Your task to perform on an android device: choose inbox layout in the gmail app Image 0: 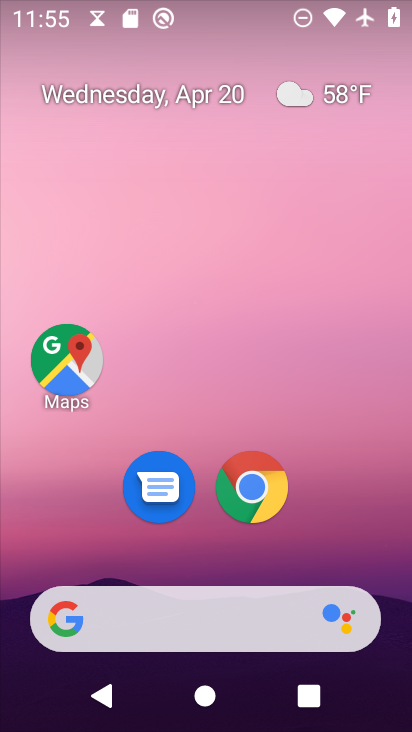
Step 0: drag from (341, 486) to (222, 109)
Your task to perform on an android device: choose inbox layout in the gmail app Image 1: 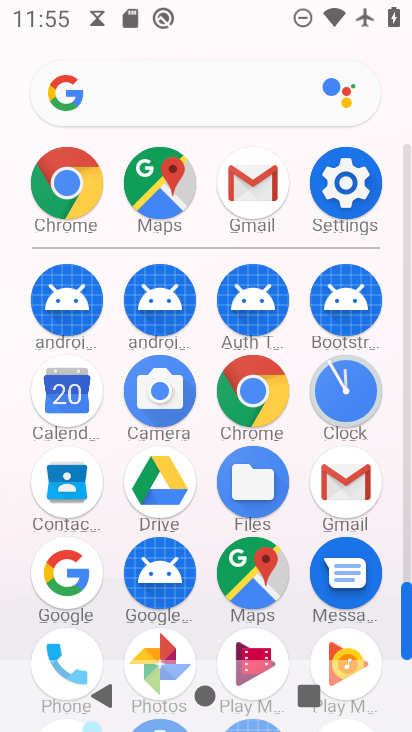
Step 1: drag from (11, 497) to (19, 237)
Your task to perform on an android device: choose inbox layout in the gmail app Image 2: 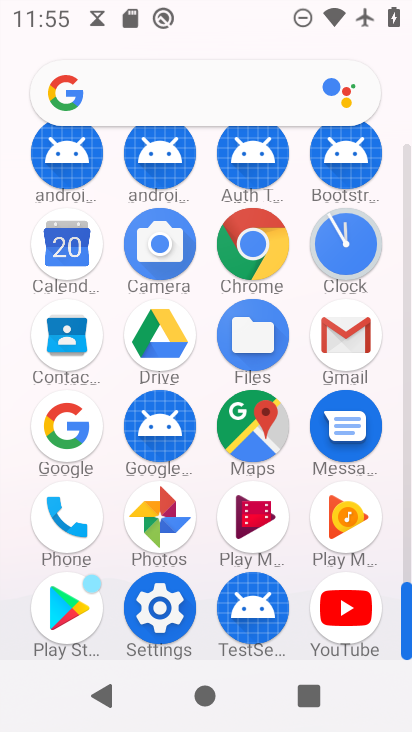
Step 2: click (349, 330)
Your task to perform on an android device: choose inbox layout in the gmail app Image 3: 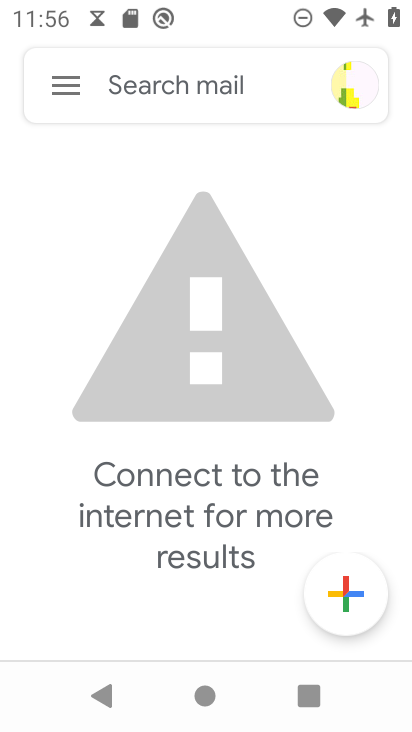
Step 3: click (64, 83)
Your task to perform on an android device: choose inbox layout in the gmail app Image 4: 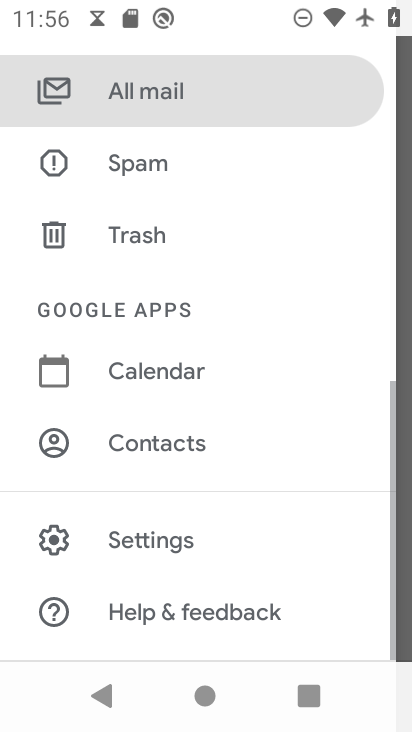
Step 4: drag from (226, 538) to (244, 82)
Your task to perform on an android device: choose inbox layout in the gmail app Image 5: 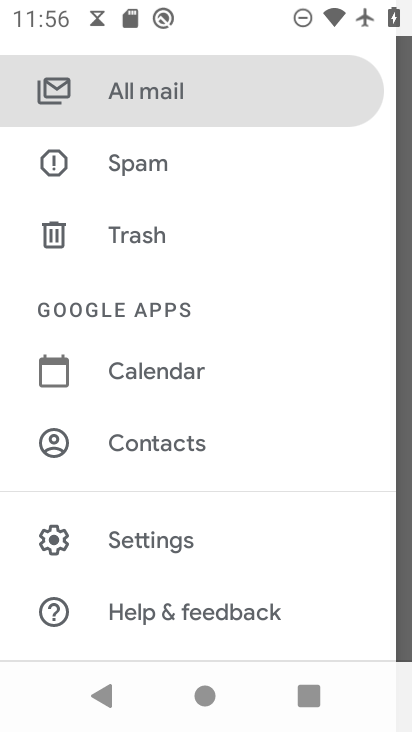
Step 5: click (191, 525)
Your task to perform on an android device: choose inbox layout in the gmail app Image 6: 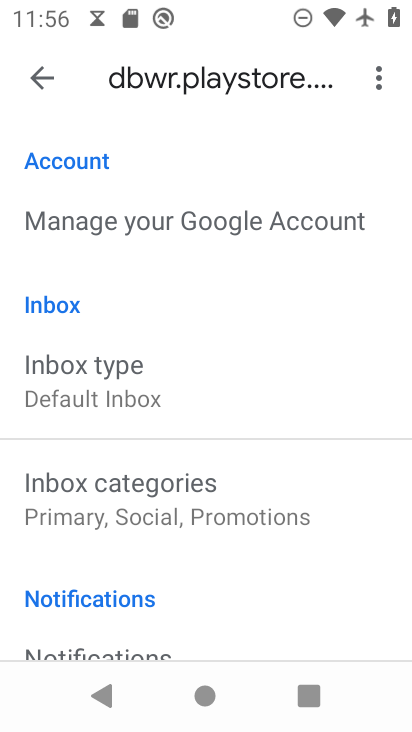
Step 6: click (129, 390)
Your task to perform on an android device: choose inbox layout in the gmail app Image 7: 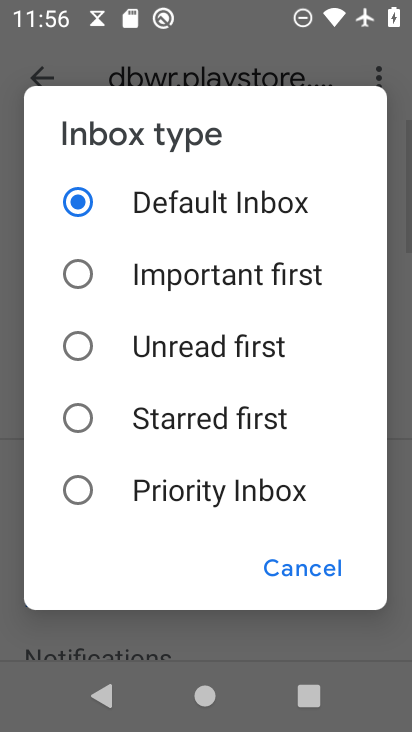
Step 7: click (145, 280)
Your task to perform on an android device: choose inbox layout in the gmail app Image 8: 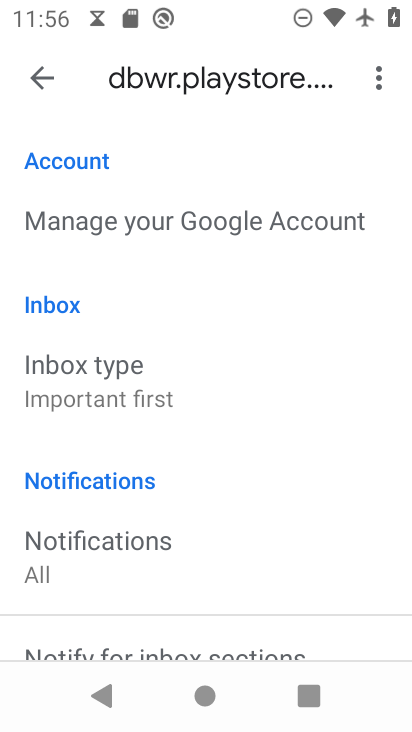
Step 8: task complete